Your task to perform on an android device: empty trash in the gmail app Image 0: 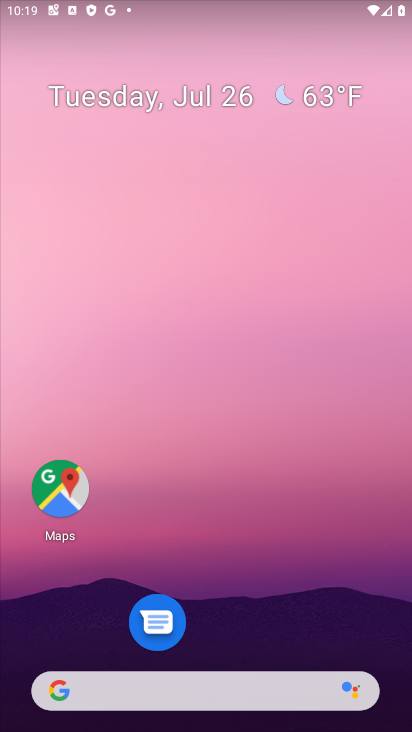
Step 0: drag from (234, 628) to (336, 3)
Your task to perform on an android device: empty trash in the gmail app Image 1: 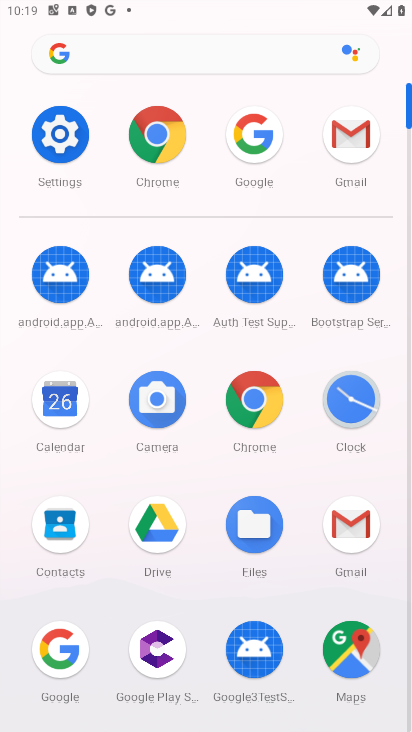
Step 1: click (341, 137)
Your task to perform on an android device: empty trash in the gmail app Image 2: 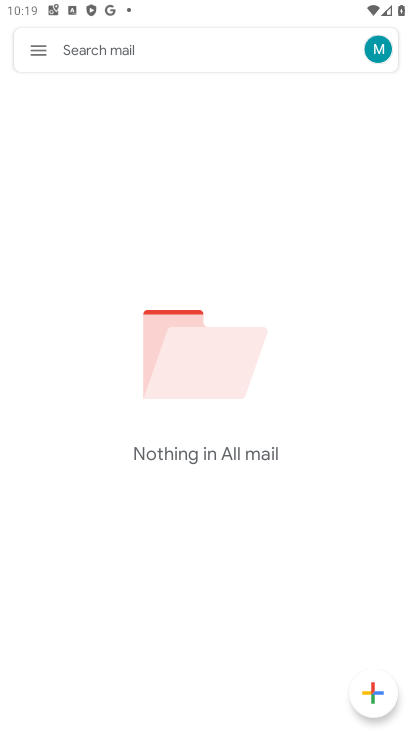
Step 2: click (39, 43)
Your task to perform on an android device: empty trash in the gmail app Image 3: 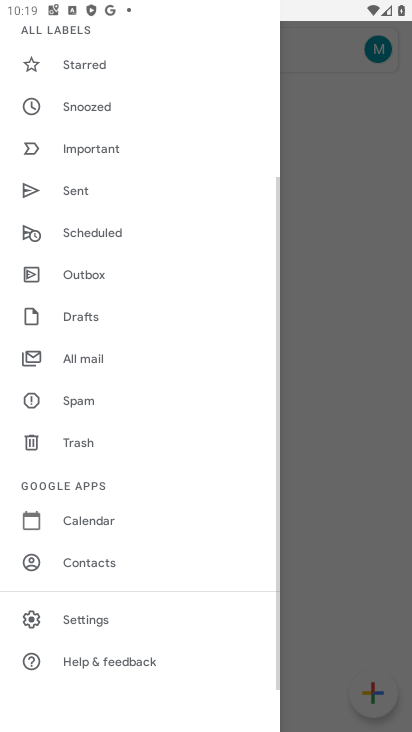
Step 3: click (76, 448)
Your task to perform on an android device: empty trash in the gmail app Image 4: 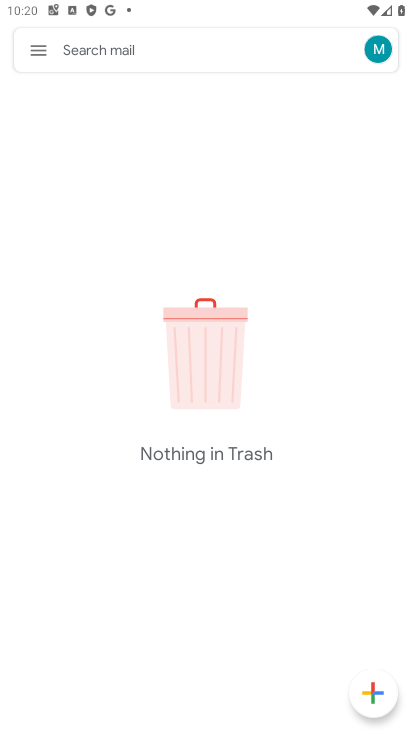
Step 4: task complete